Your task to perform on an android device: check google app version Image 0: 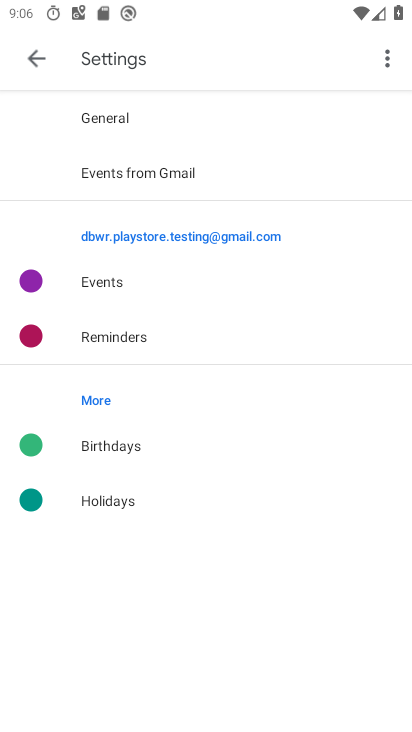
Step 0: press back button
Your task to perform on an android device: check google app version Image 1: 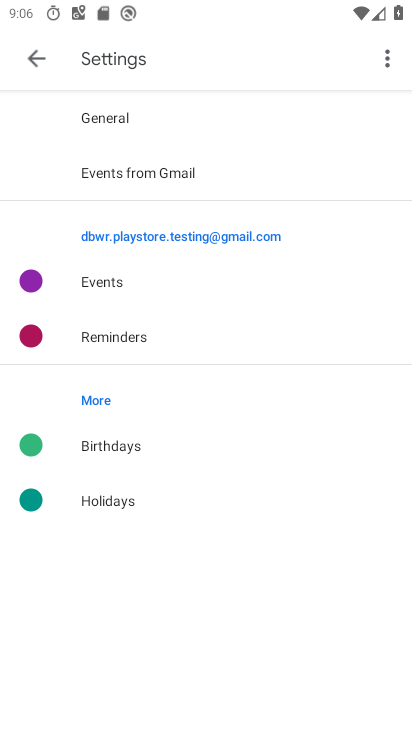
Step 1: press back button
Your task to perform on an android device: check google app version Image 2: 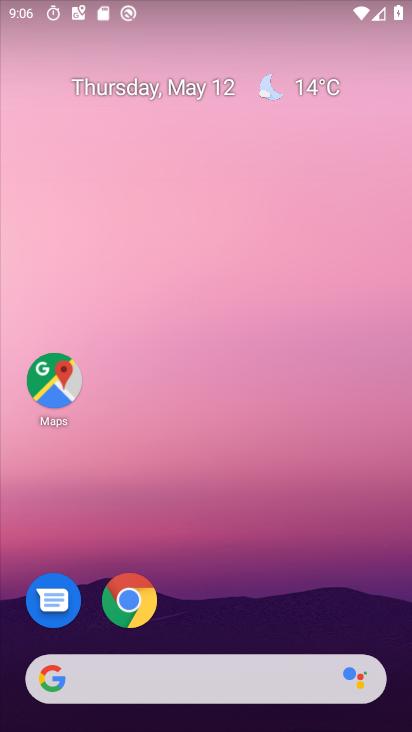
Step 2: drag from (283, 553) to (130, 64)
Your task to perform on an android device: check google app version Image 3: 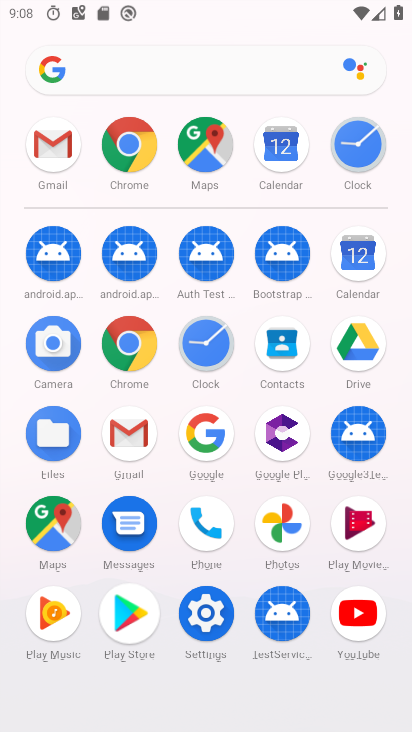
Step 3: click (199, 438)
Your task to perform on an android device: check google app version Image 4: 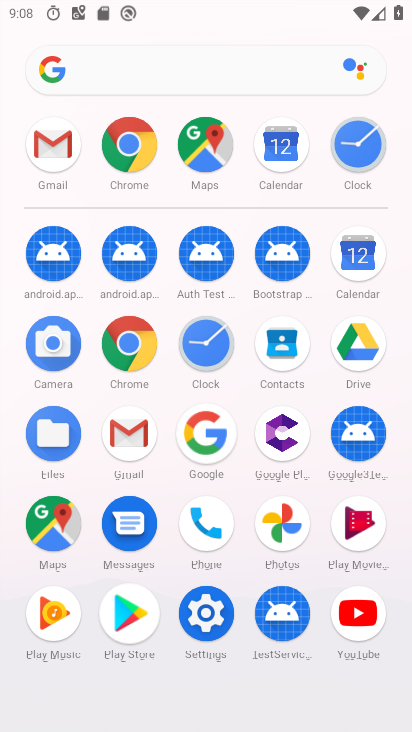
Step 4: click (200, 407)
Your task to perform on an android device: check google app version Image 5: 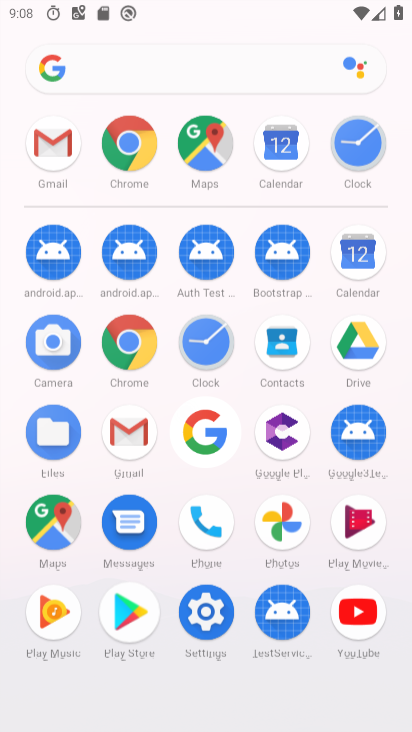
Step 5: click (208, 433)
Your task to perform on an android device: check google app version Image 6: 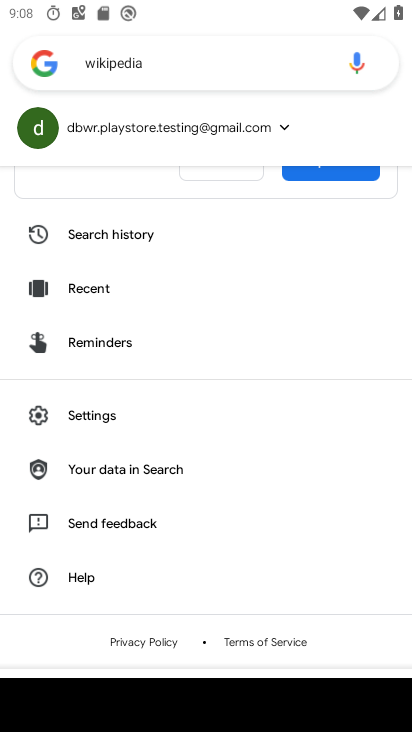
Step 6: click (208, 432)
Your task to perform on an android device: check google app version Image 7: 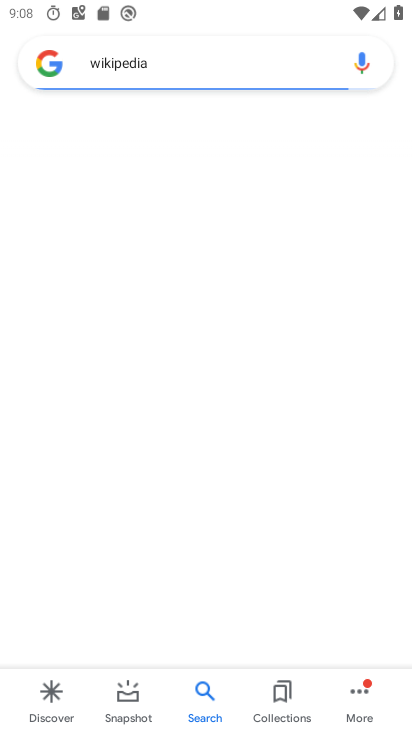
Step 7: click (209, 432)
Your task to perform on an android device: check google app version Image 8: 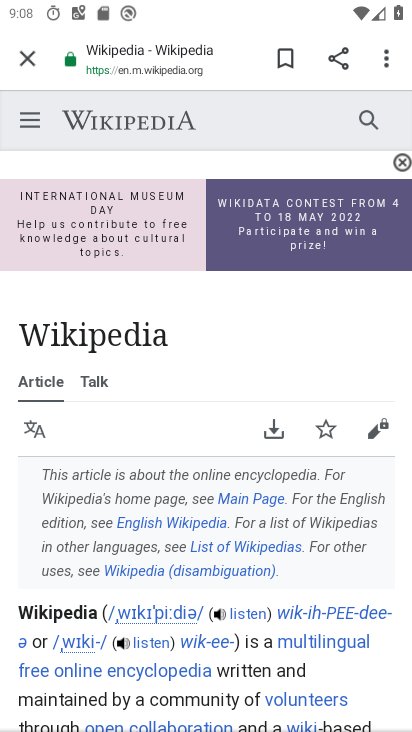
Step 8: press back button
Your task to perform on an android device: check google app version Image 9: 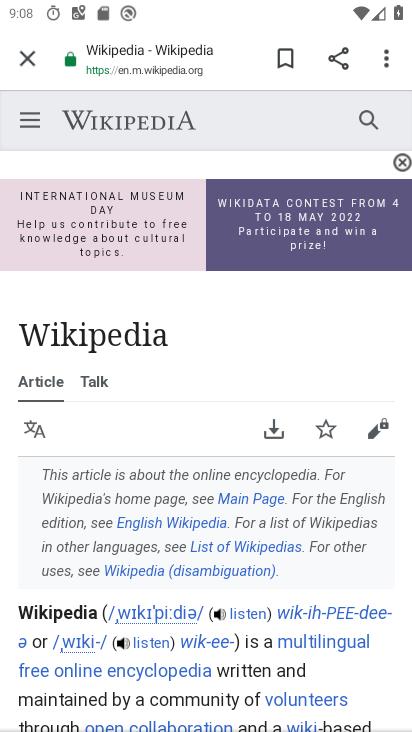
Step 9: press back button
Your task to perform on an android device: check google app version Image 10: 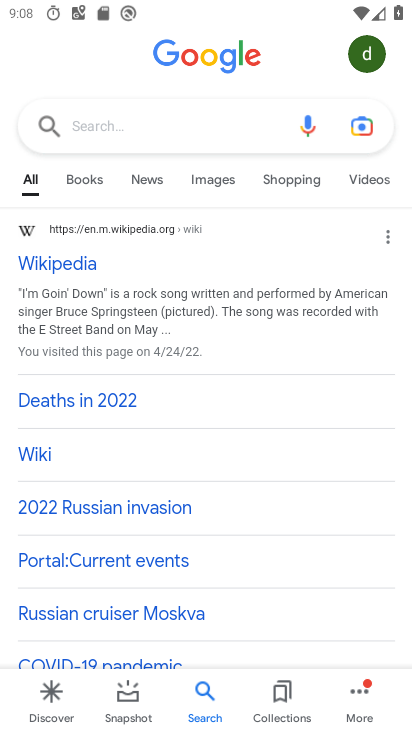
Step 10: press back button
Your task to perform on an android device: check google app version Image 11: 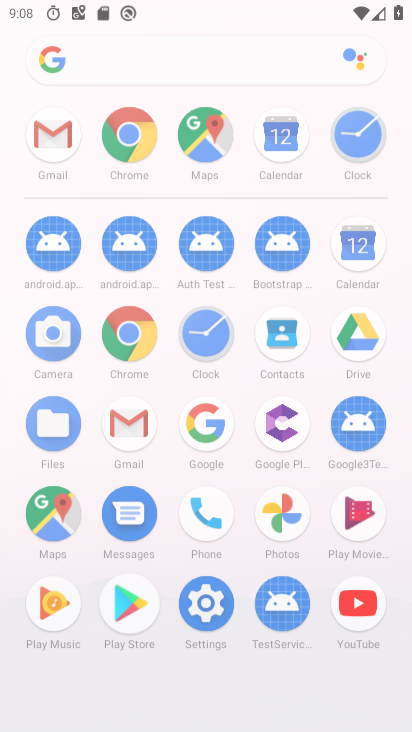
Step 11: press home button
Your task to perform on an android device: check google app version Image 12: 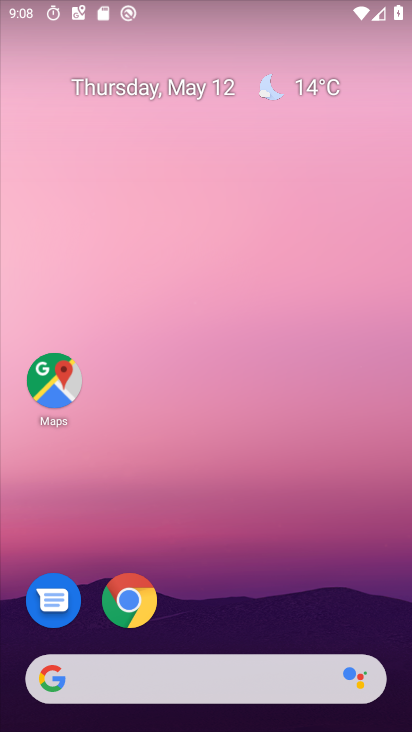
Step 12: drag from (175, 634) to (58, 4)
Your task to perform on an android device: check google app version Image 13: 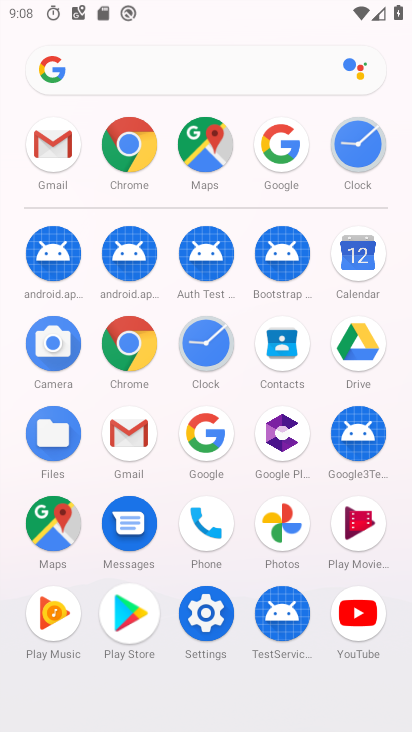
Step 13: click (204, 446)
Your task to perform on an android device: check google app version Image 14: 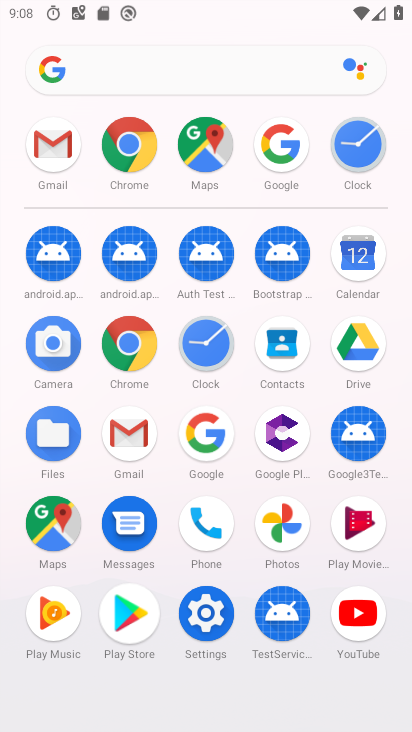
Step 14: click (204, 446)
Your task to perform on an android device: check google app version Image 15: 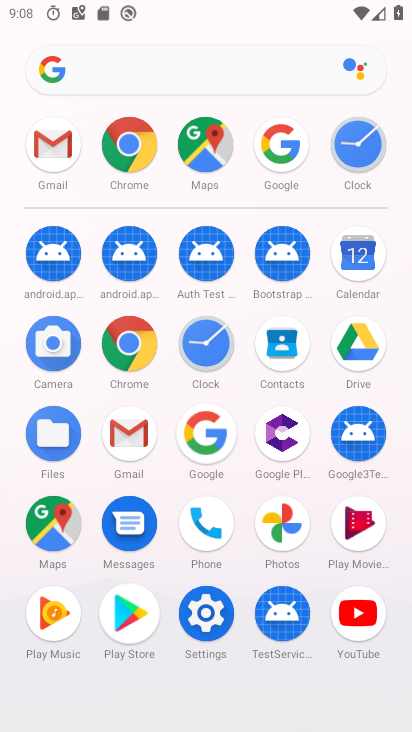
Step 15: click (204, 446)
Your task to perform on an android device: check google app version Image 16: 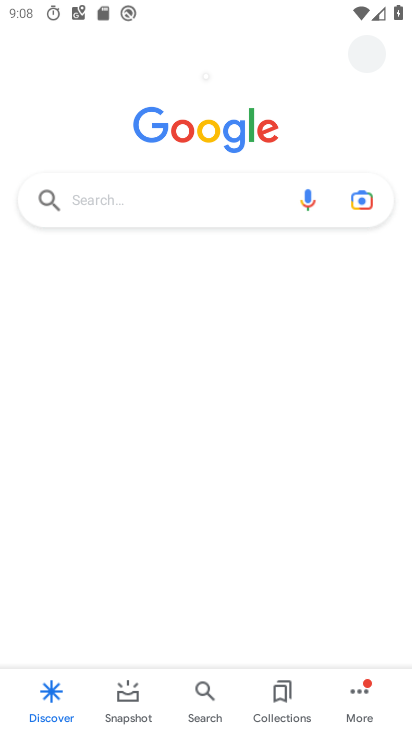
Step 16: click (204, 446)
Your task to perform on an android device: check google app version Image 17: 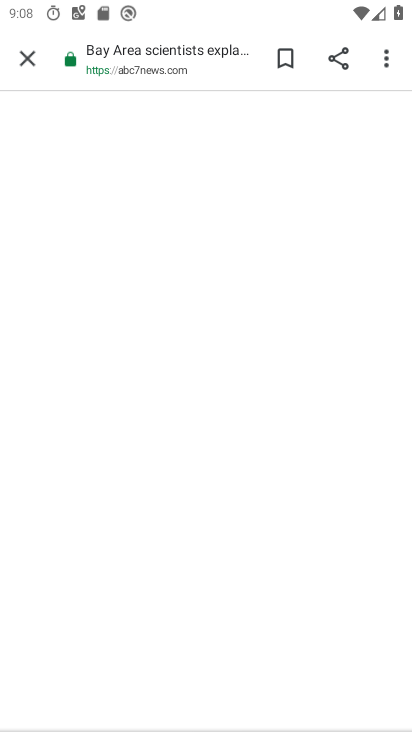
Step 17: click (24, 58)
Your task to perform on an android device: check google app version Image 18: 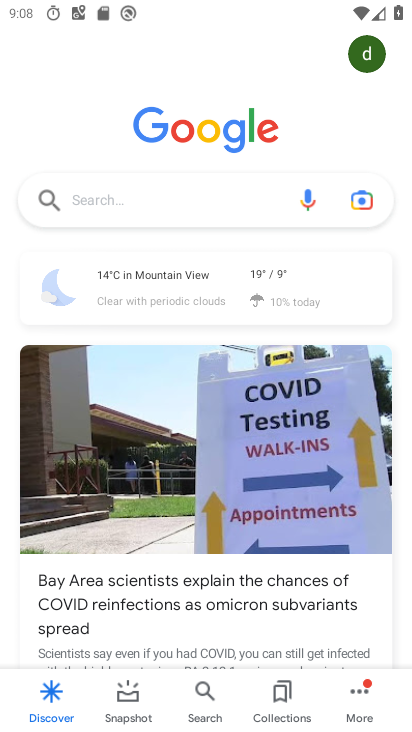
Step 18: click (364, 697)
Your task to perform on an android device: check google app version Image 19: 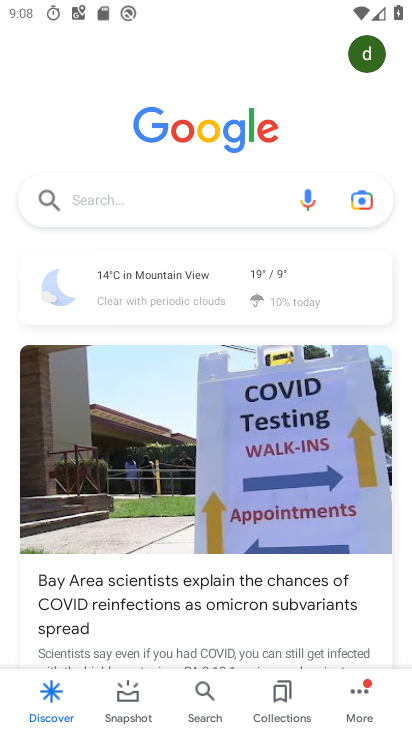
Step 19: click (364, 697)
Your task to perform on an android device: check google app version Image 20: 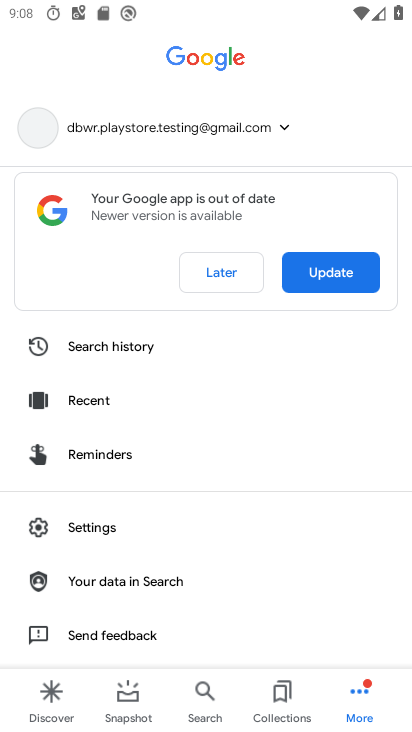
Step 20: click (364, 697)
Your task to perform on an android device: check google app version Image 21: 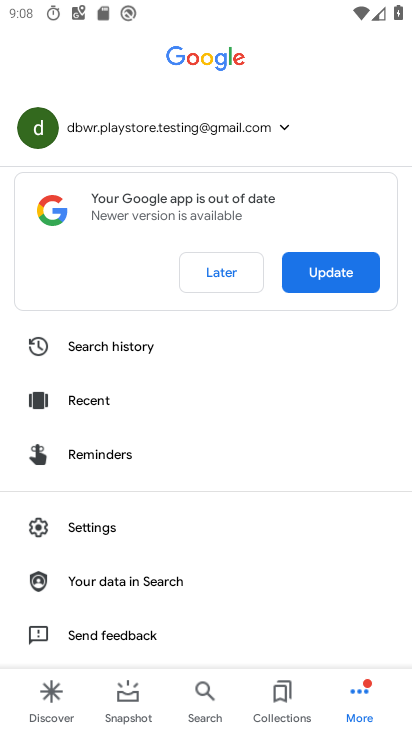
Step 21: drag from (113, 596) to (120, 264)
Your task to perform on an android device: check google app version Image 22: 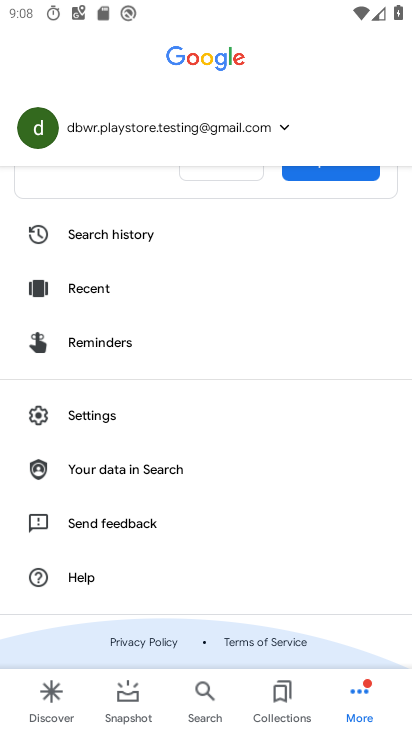
Step 22: drag from (175, 515) to (173, 274)
Your task to perform on an android device: check google app version Image 23: 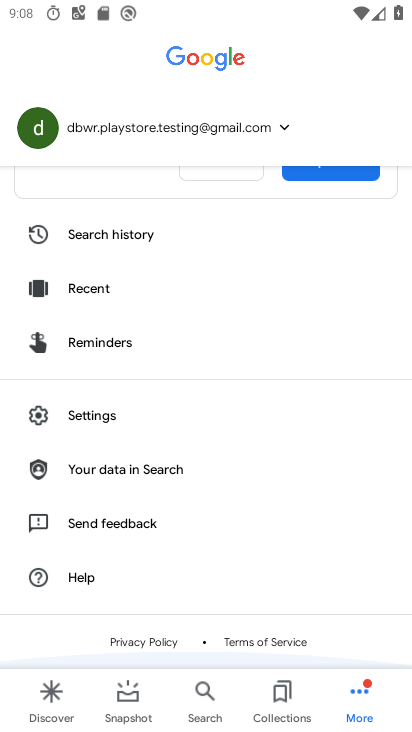
Step 23: drag from (174, 450) to (174, 196)
Your task to perform on an android device: check google app version Image 24: 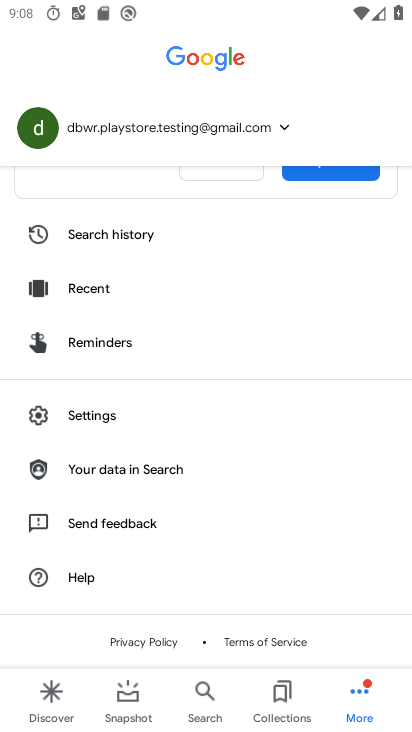
Step 24: click (85, 425)
Your task to perform on an android device: check google app version Image 25: 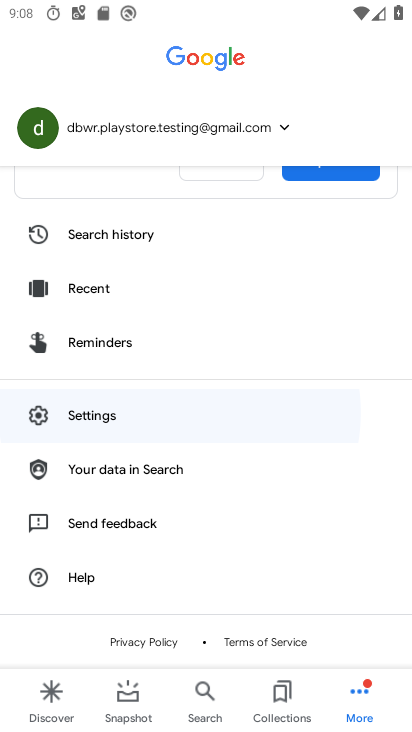
Step 25: click (85, 409)
Your task to perform on an android device: check google app version Image 26: 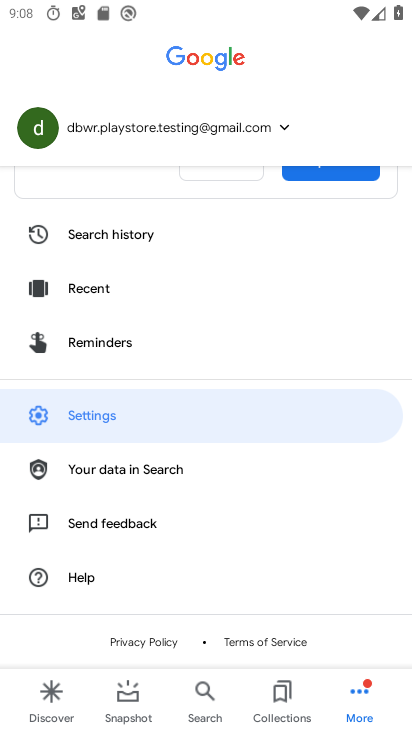
Step 26: click (86, 408)
Your task to perform on an android device: check google app version Image 27: 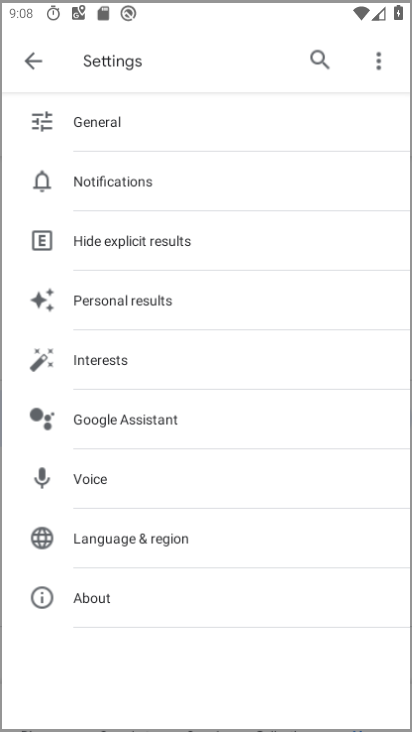
Step 27: click (90, 409)
Your task to perform on an android device: check google app version Image 28: 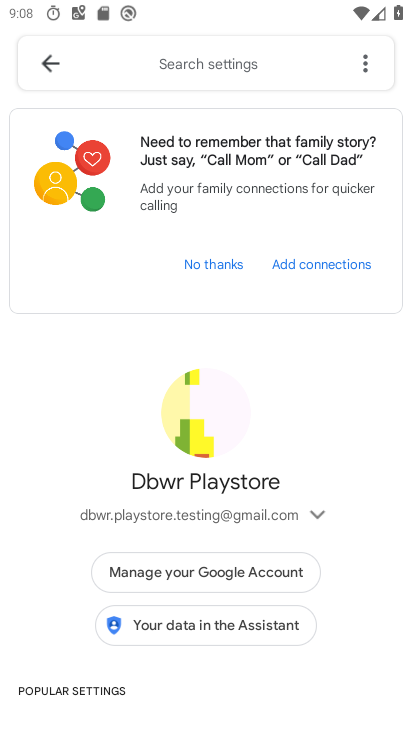
Step 28: click (48, 69)
Your task to perform on an android device: check google app version Image 29: 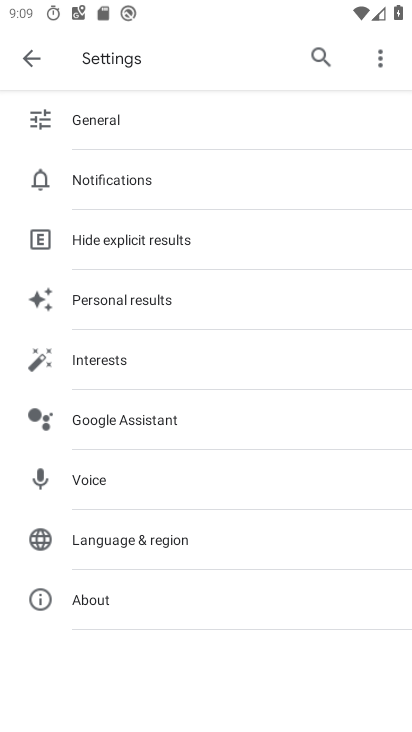
Step 29: click (90, 585)
Your task to perform on an android device: check google app version Image 30: 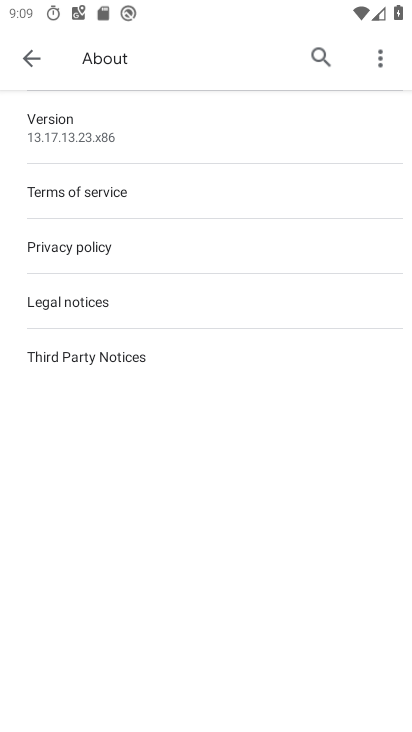
Step 30: task complete